Your task to perform on an android device: Open notification settings Image 0: 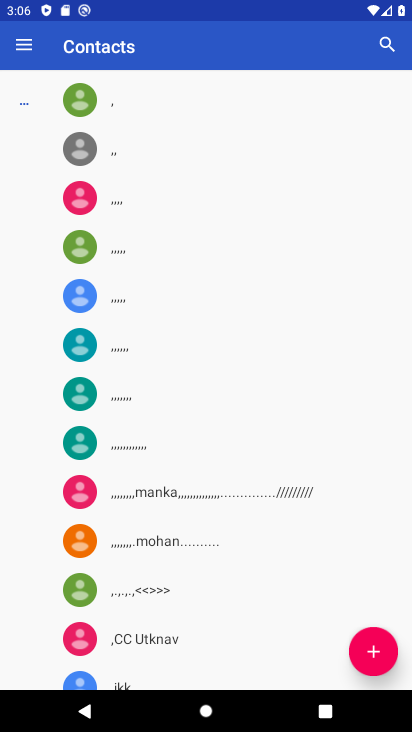
Step 0: press home button
Your task to perform on an android device: Open notification settings Image 1: 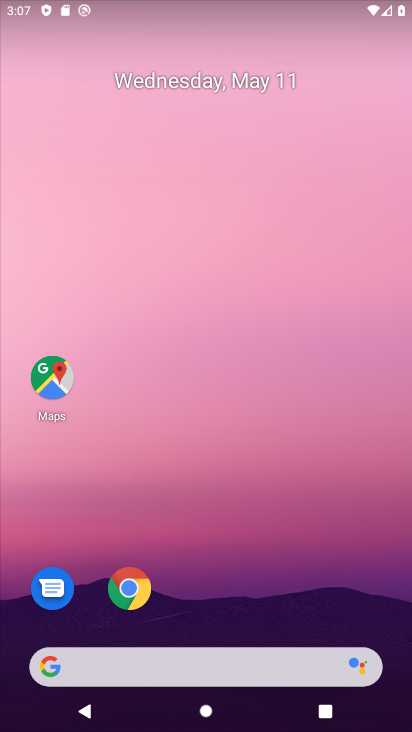
Step 1: drag from (194, 616) to (207, 18)
Your task to perform on an android device: Open notification settings Image 2: 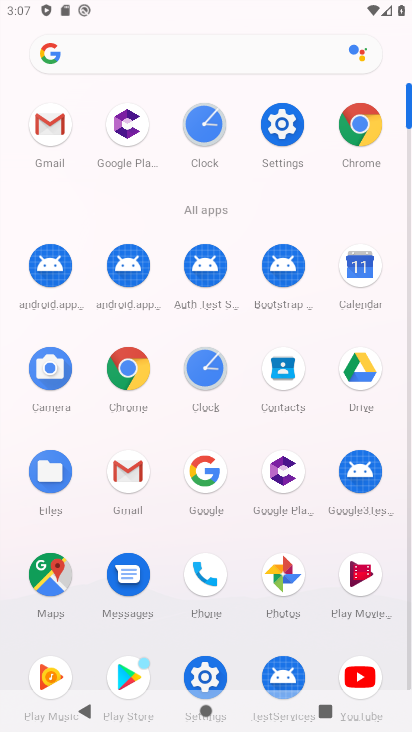
Step 2: click (288, 149)
Your task to perform on an android device: Open notification settings Image 3: 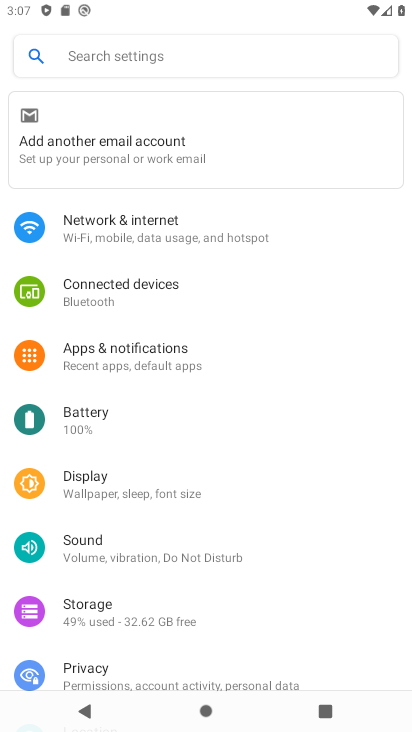
Step 3: click (154, 349)
Your task to perform on an android device: Open notification settings Image 4: 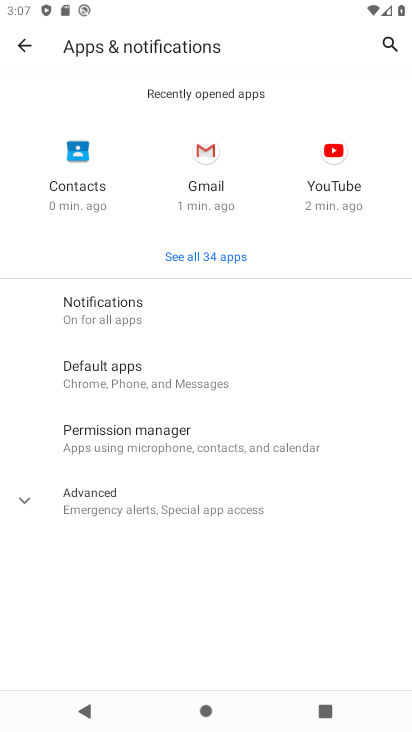
Step 4: click (129, 320)
Your task to perform on an android device: Open notification settings Image 5: 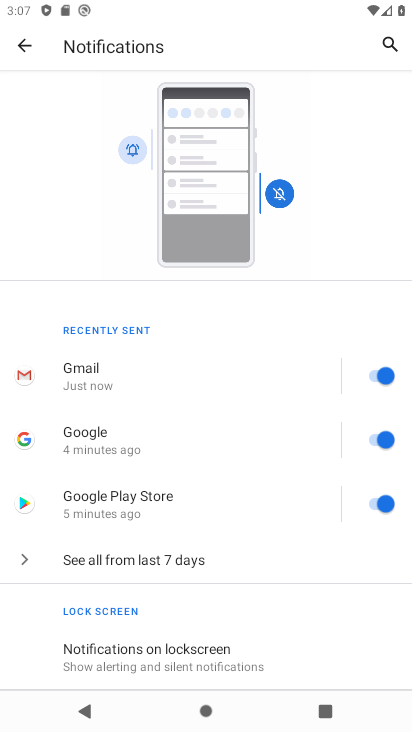
Step 5: task complete